Your task to perform on an android device: allow notifications from all sites in the chrome app Image 0: 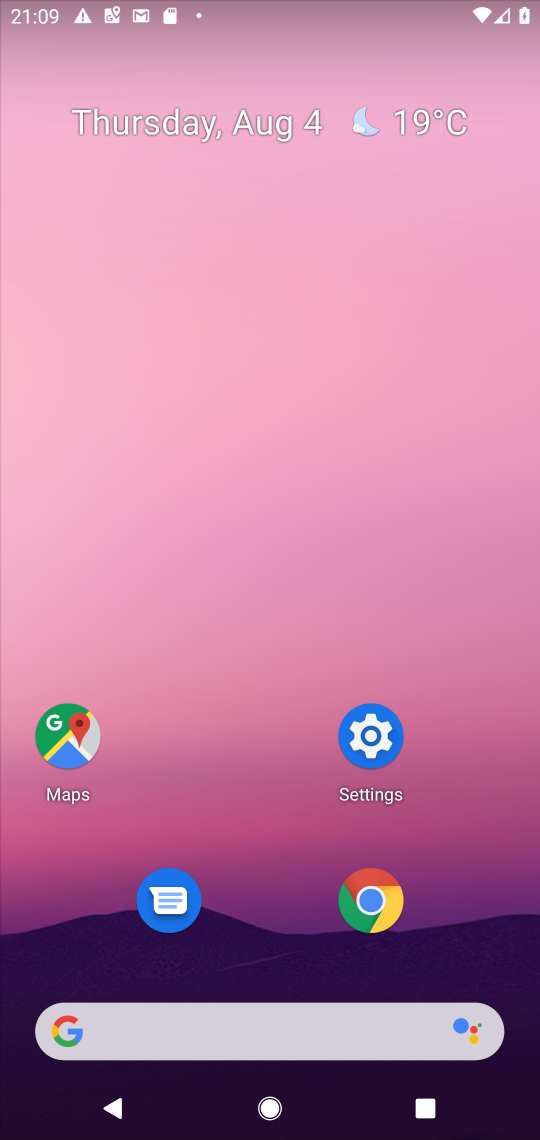
Step 0: press home button
Your task to perform on an android device: allow notifications from all sites in the chrome app Image 1: 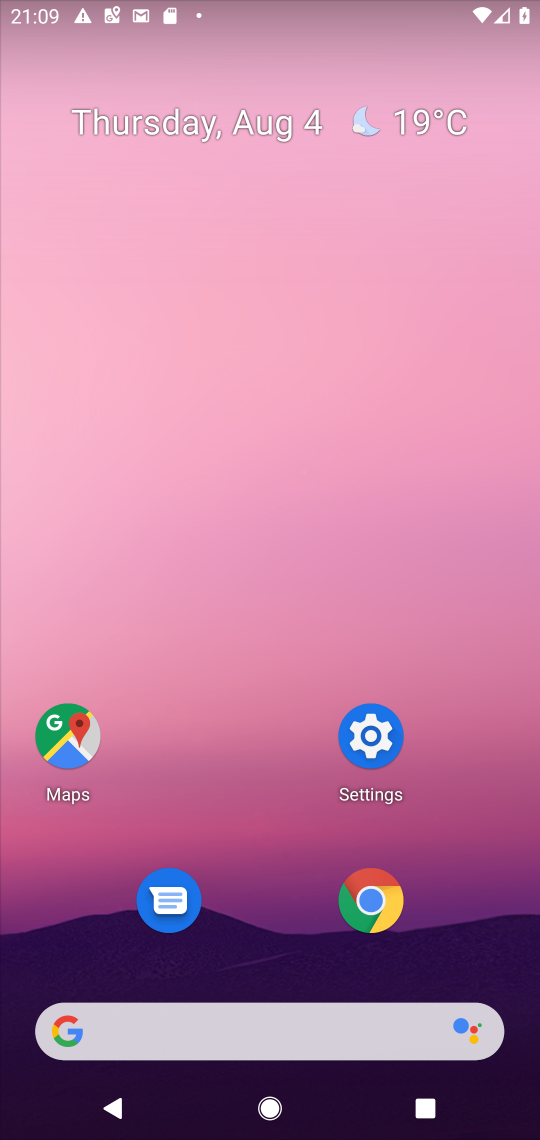
Step 1: click (369, 896)
Your task to perform on an android device: allow notifications from all sites in the chrome app Image 2: 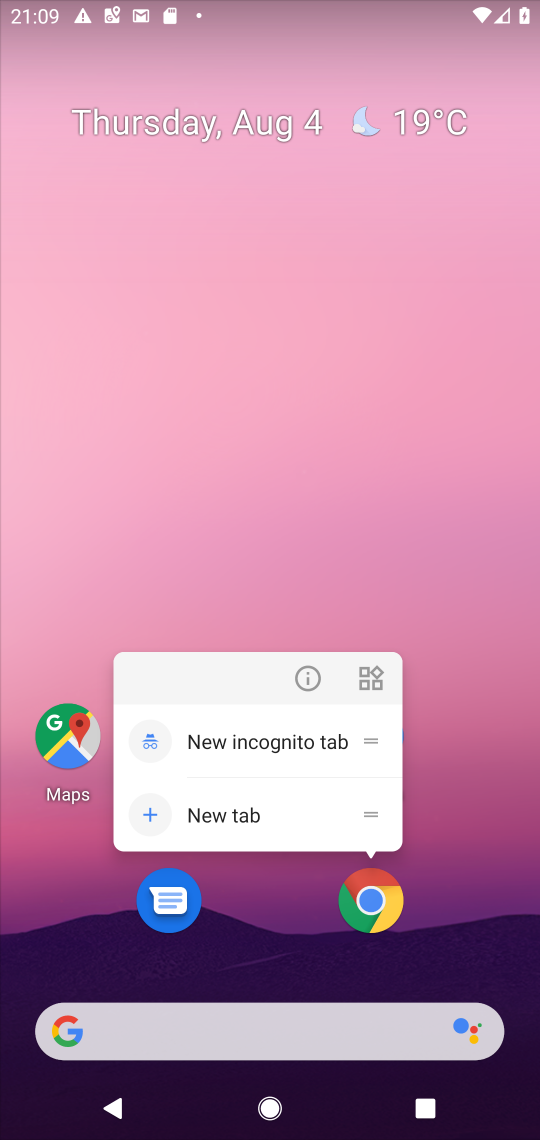
Step 2: click (369, 896)
Your task to perform on an android device: allow notifications from all sites in the chrome app Image 3: 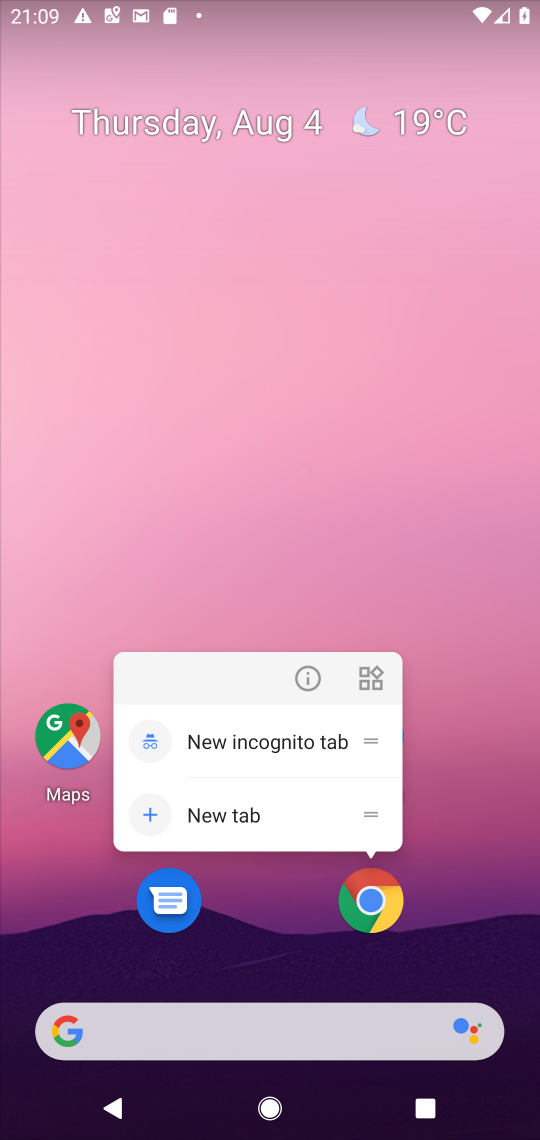
Step 3: click (369, 897)
Your task to perform on an android device: allow notifications from all sites in the chrome app Image 4: 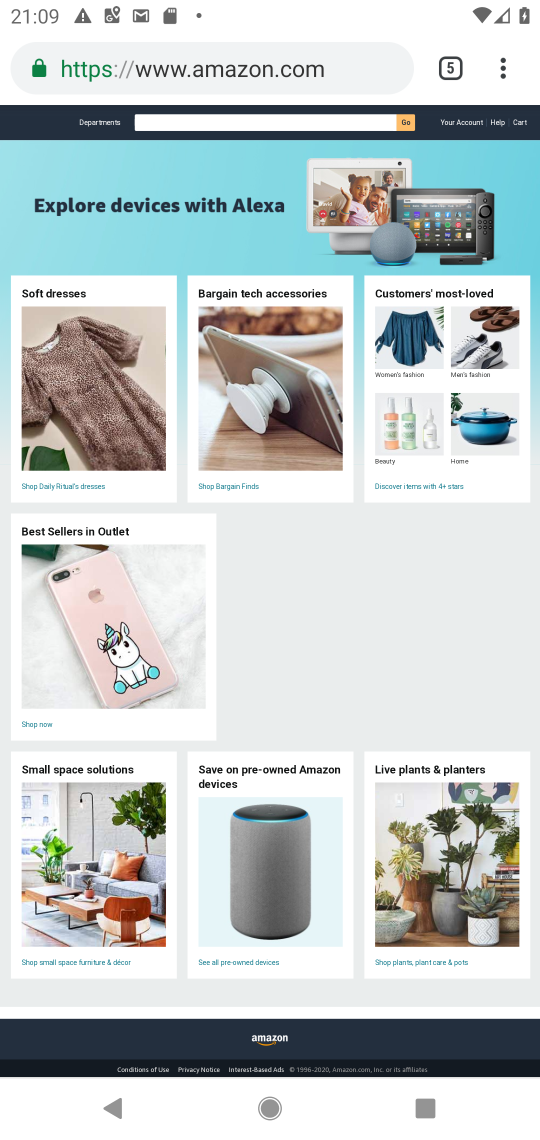
Step 4: drag from (504, 57) to (299, 876)
Your task to perform on an android device: allow notifications from all sites in the chrome app Image 5: 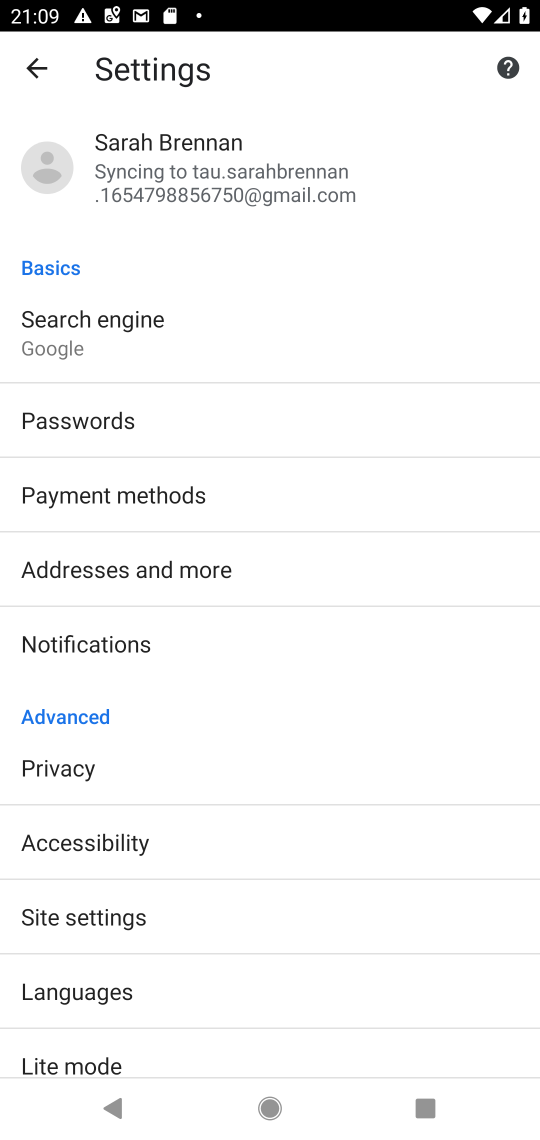
Step 5: click (84, 915)
Your task to perform on an android device: allow notifications from all sites in the chrome app Image 6: 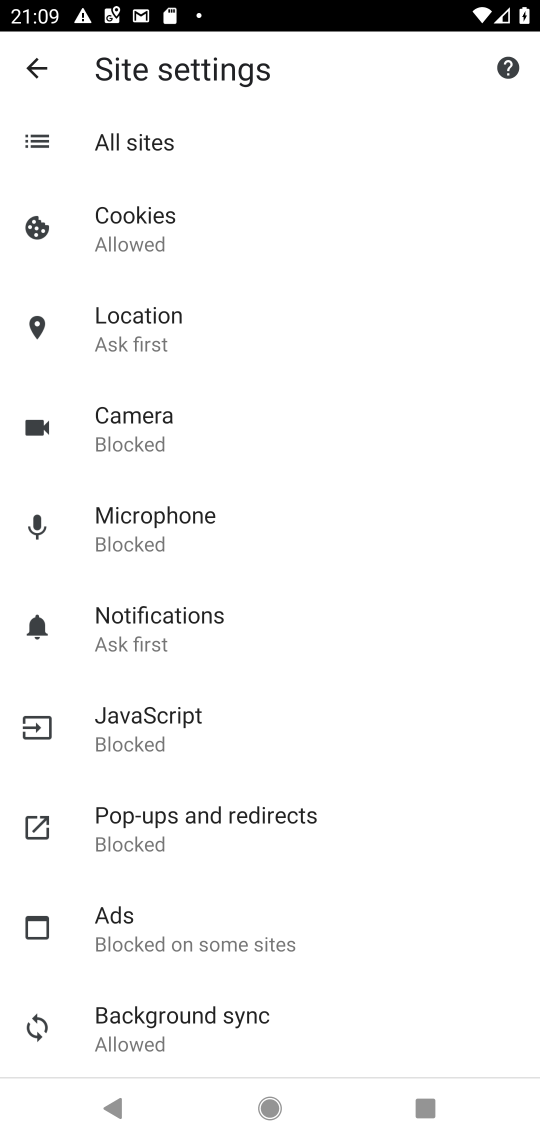
Step 6: click (185, 612)
Your task to perform on an android device: allow notifications from all sites in the chrome app Image 7: 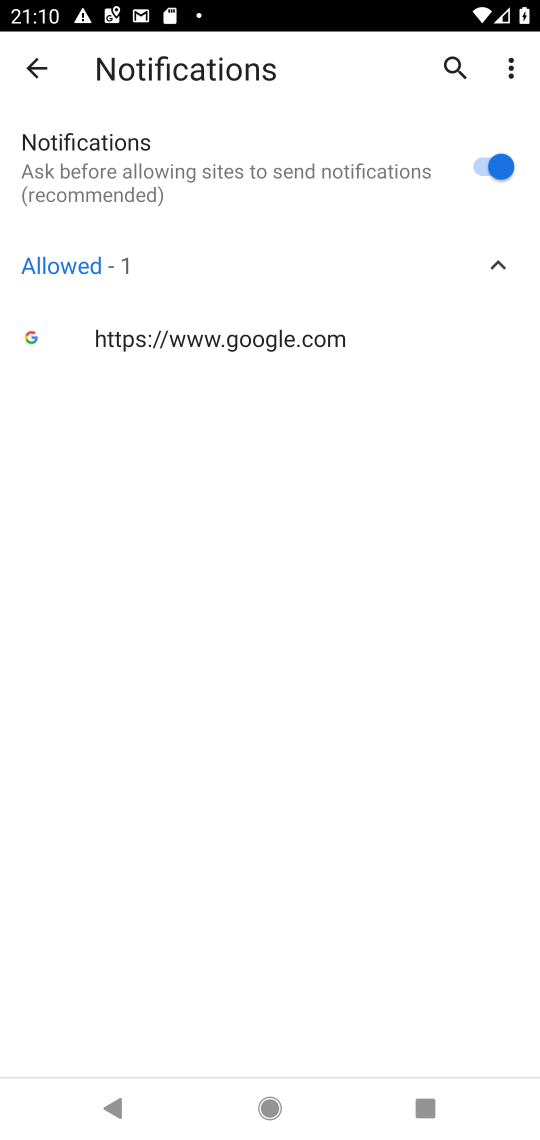
Step 7: task complete